Your task to perform on an android device: show emergency info Image 0: 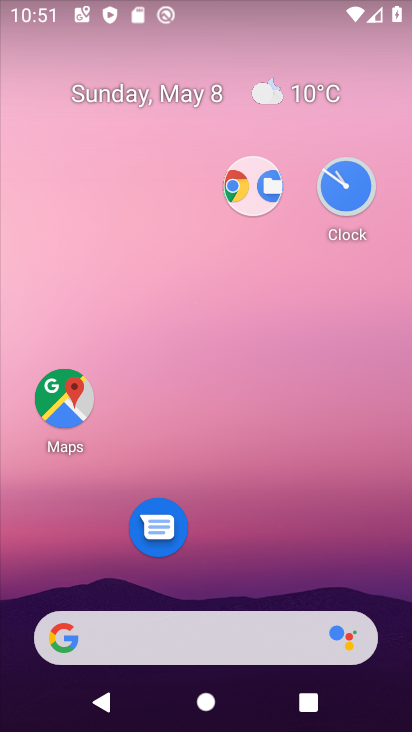
Step 0: drag from (297, 494) to (273, 50)
Your task to perform on an android device: show emergency info Image 1: 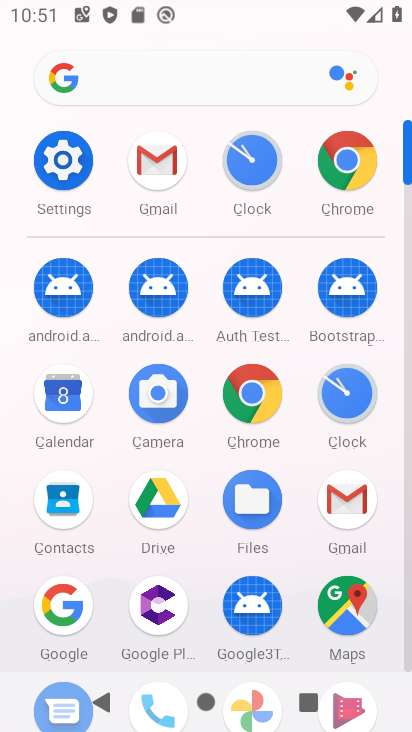
Step 1: click (58, 166)
Your task to perform on an android device: show emergency info Image 2: 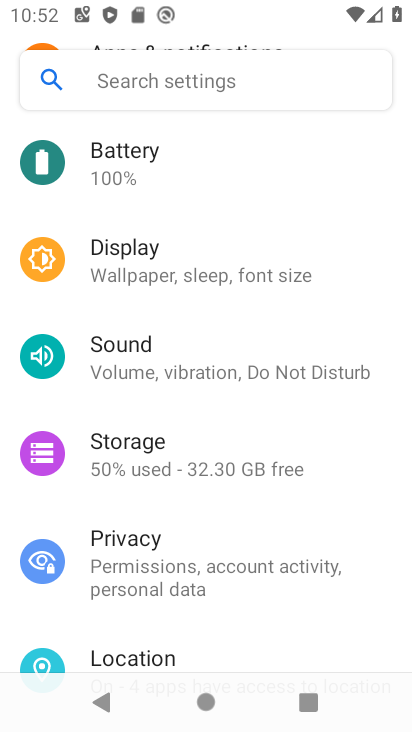
Step 2: drag from (259, 600) to (297, 84)
Your task to perform on an android device: show emergency info Image 3: 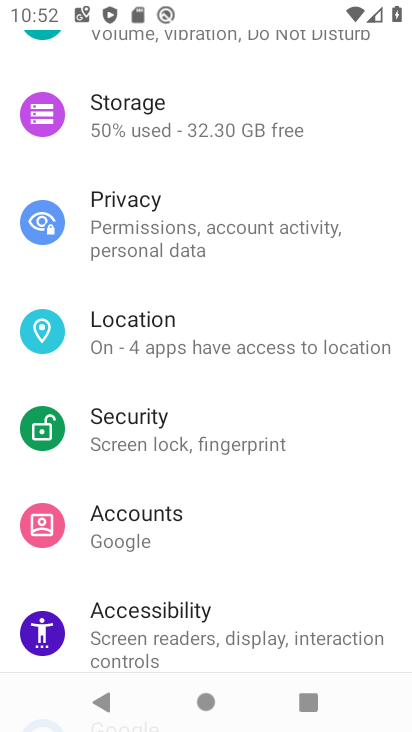
Step 3: drag from (277, 562) to (282, 279)
Your task to perform on an android device: show emergency info Image 4: 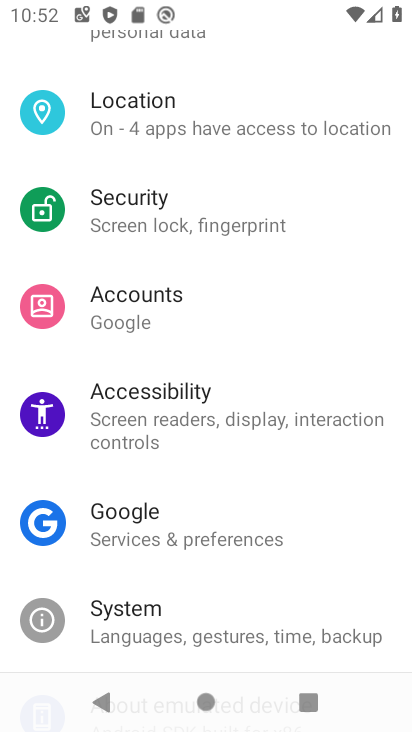
Step 4: drag from (214, 614) to (232, 214)
Your task to perform on an android device: show emergency info Image 5: 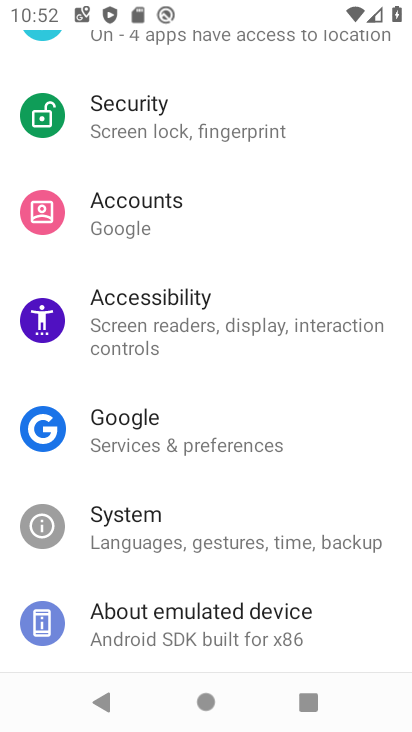
Step 5: click (200, 614)
Your task to perform on an android device: show emergency info Image 6: 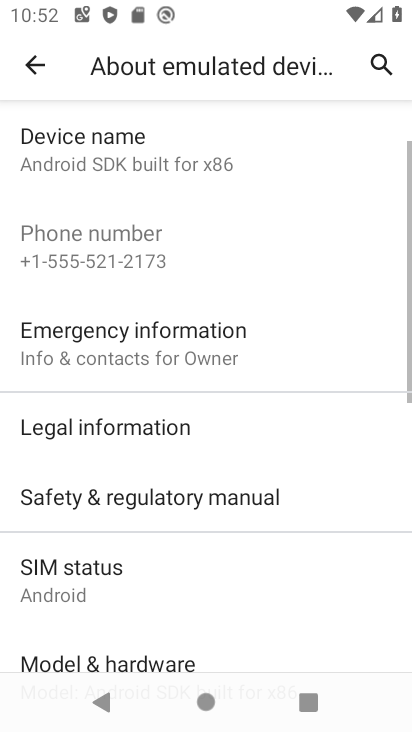
Step 6: click (191, 350)
Your task to perform on an android device: show emergency info Image 7: 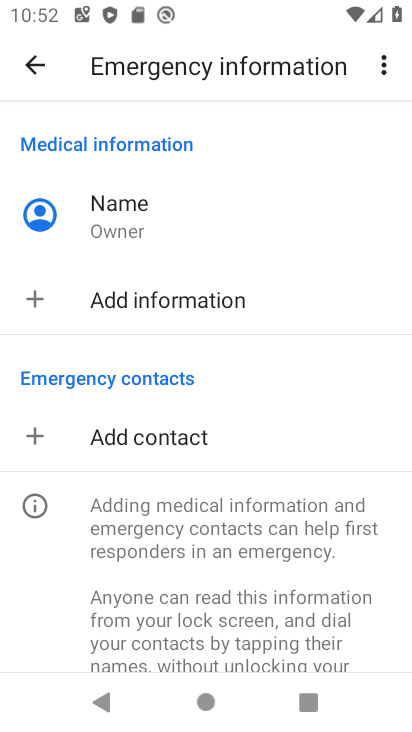
Step 7: task complete